Your task to perform on an android device: Show the shopping cart on ebay.com. Search for "razer naga" on ebay.com, select the first entry, and add it to the cart. Image 0: 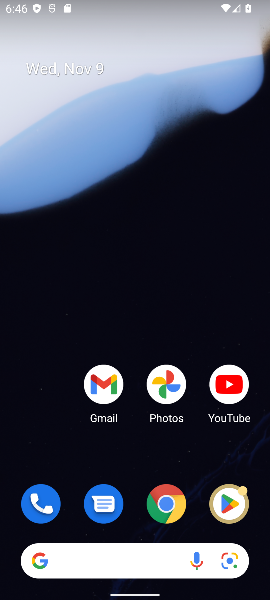
Step 0: click (163, 502)
Your task to perform on an android device: Show the shopping cart on ebay.com. Search for "razer naga" on ebay.com, select the first entry, and add it to the cart. Image 1: 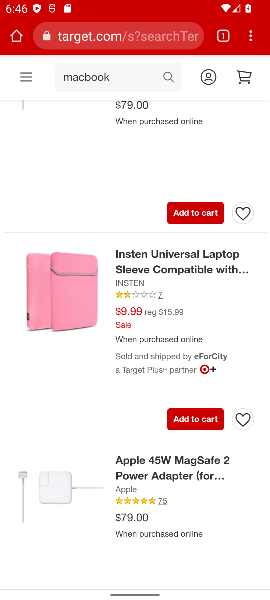
Step 1: click (118, 40)
Your task to perform on an android device: Show the shopping cart on ebay.com. Search for "razer naga" on ebay.com, select the first entry, and add it to the cart. Image 2: 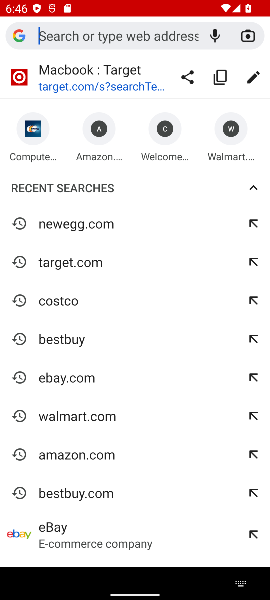
Step 2: type "ebay.com"
Your task to perform on an android device: Show the shopping cart on ebay.com. Search for "razer naga" on ebay.com, select the first entry, and add it to the cart. Image 3: 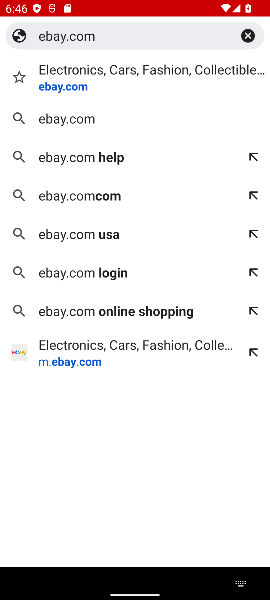
Step 3: click (146, 72)
Your task to perform on an android device: Show the shopping cart on ebay.com. Search for "razer naga" on ebay.com, select the first entry, and add it to the cart. Image 4: 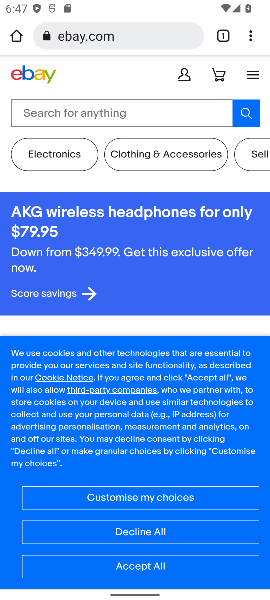
Step 4: click (105, 108)
Your task to perform on an android device: Show the shopping cart on ebay.com. Search for "razer naga" on ebay.com, select the first entry, and add it to the cart. Image 5: 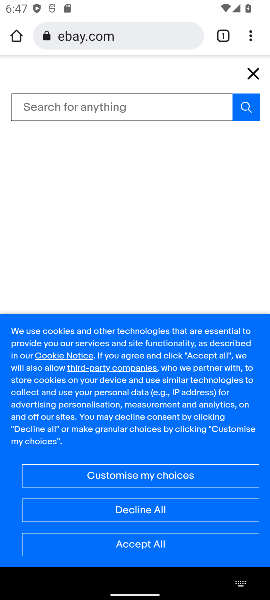
Step 5: type "razer naga"
Your task to perform on an android device: Show the shopping cart on ebay.com. Search for "razer naga" on ebay.com, select the first entry, and add it to the cart. Image 6: 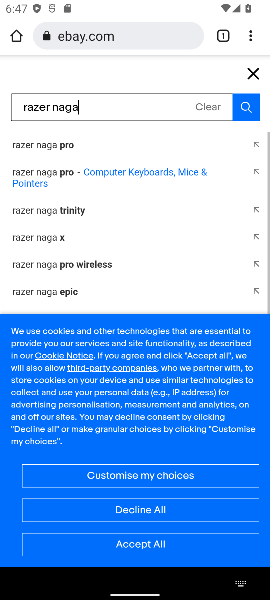
Step 6: press enter
Your task to perform on an android device: Show the shopping cart on ebay.com. Search for "razer naga" on ebay.com, select the first entry, and add it to the cart. Image 7: 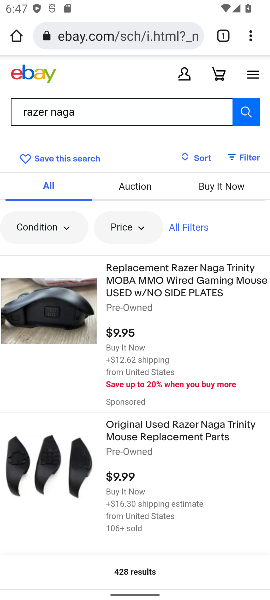
Step 7: click (110, 293)
Your task to perform on an android device: Show the shopping cart on ebay.com. Search for "razer naga" on ebay.com, select the first entry, and add it to the cart. Image 8: 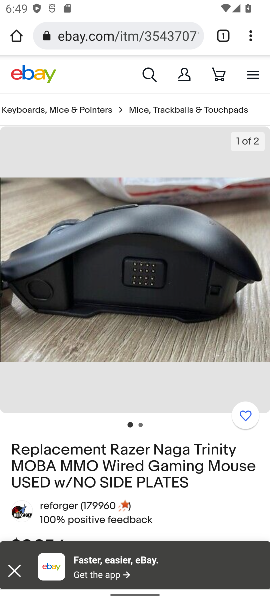
Step 8: drag from (168, 454) to (143, 91)
Your task to perform on an android device: Show the shopping cart on ebay.com. Search for "razer naga" on ebay.com, select the first entry, and add it to the cart. Image 9: 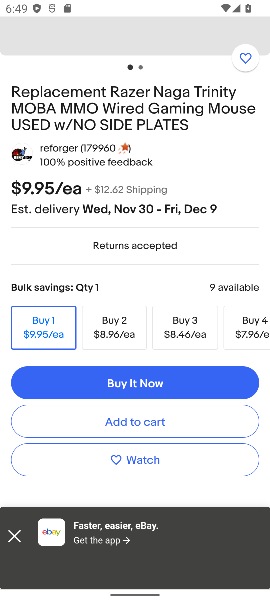
Step 9: click (194, 425)
Your task to perform on an android device: Show the shopping cart on ebay.com. Search for "razer naga" on ebay.com, select the first entry, and add it to the cart. Image 10: 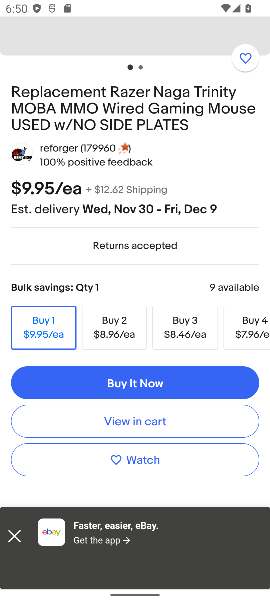
Step 10: task complete